Your task to perform on an android device: Open calendar and show me the second week of next month Image 0: 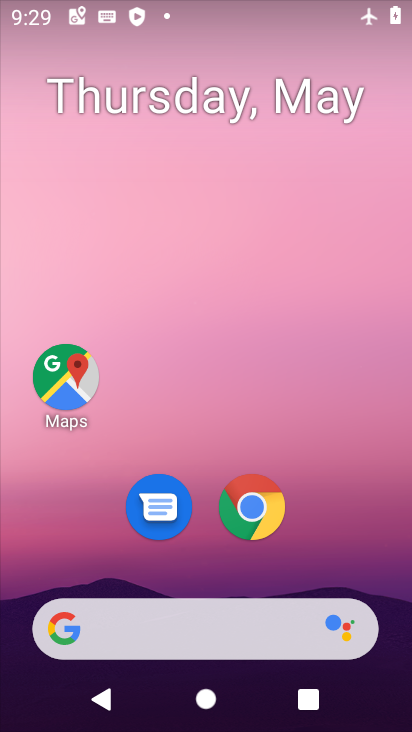
Step 0: drag from (267, 619) to (274, 182)
Your task to perform on an android device: Open calendar and show me the second week of next month Image 1: 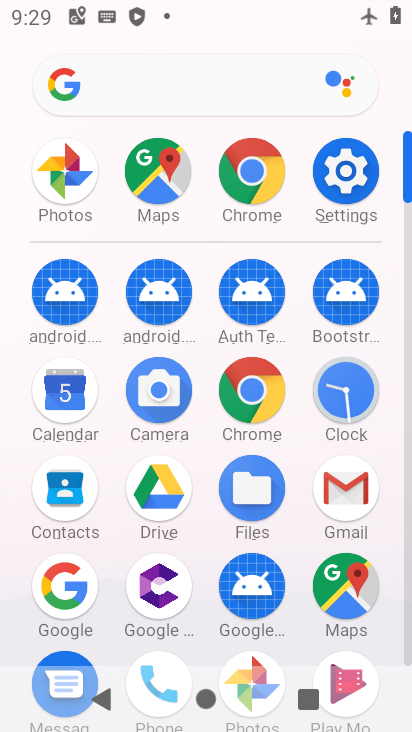
Step 1: task complete